Your task to perform on an android device: toggle sleep mode Image 0: 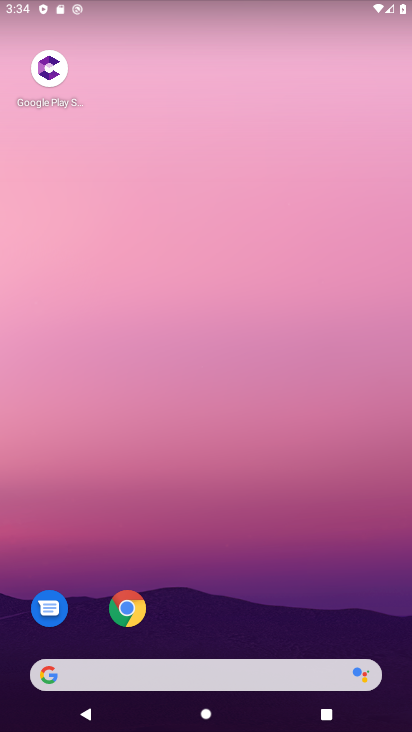
Step 0: drag from (194, 659) to (216, 142)
Your task to perform on an android device: toggle sleep mode Image 1: 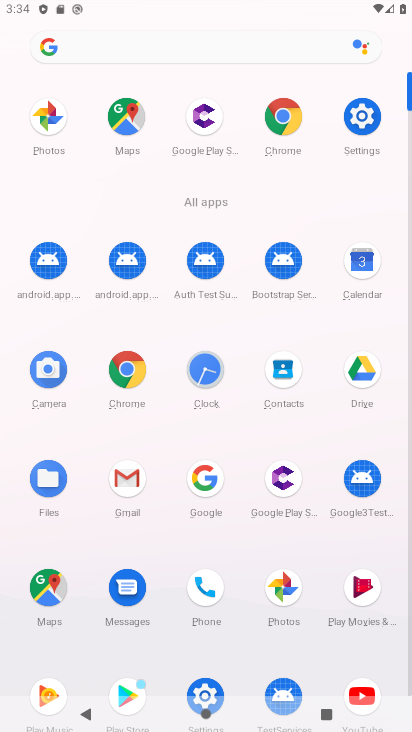
Step 1: click (369, 126)
Your task to perform on an android device: toggle sleep mode Image 2: 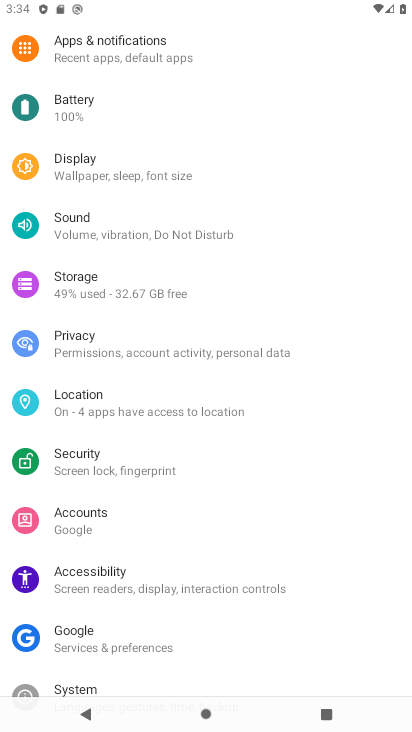
Step 2: click (150, 174)
Your task to perform on an android device: toggle sleep mode Image 3: 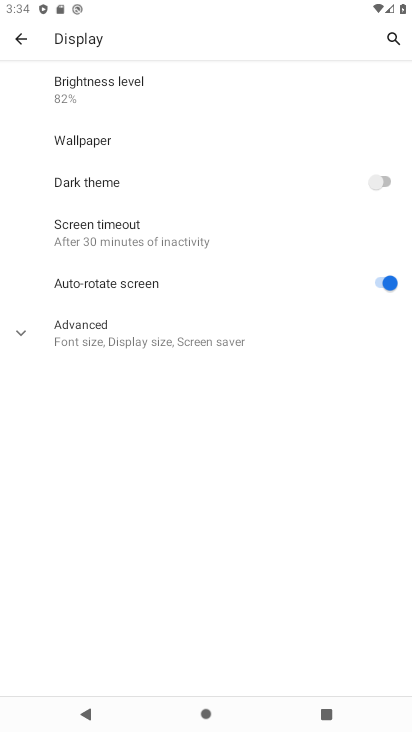
Step 3: click (109, 323)
Your task to perform on an android device: toggle sleep mode Image 4: 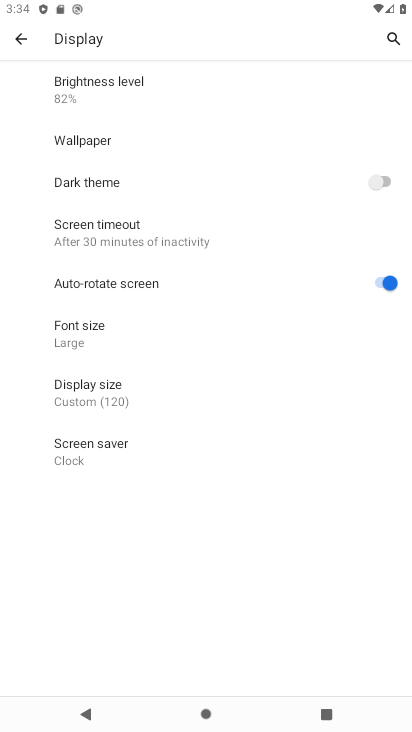
Step 4: click (90, 87)
Your task to perform on an android device: toggle sleep mode Image 5: 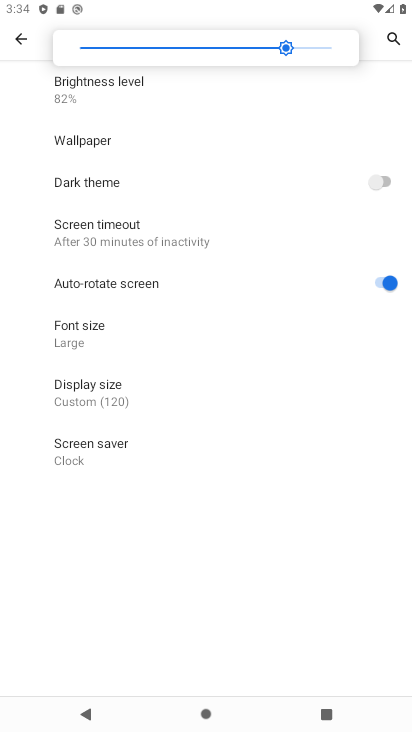
Step 5: click (132, 231)
Your task to perform on an android device: toggle sleep mode Image 6: 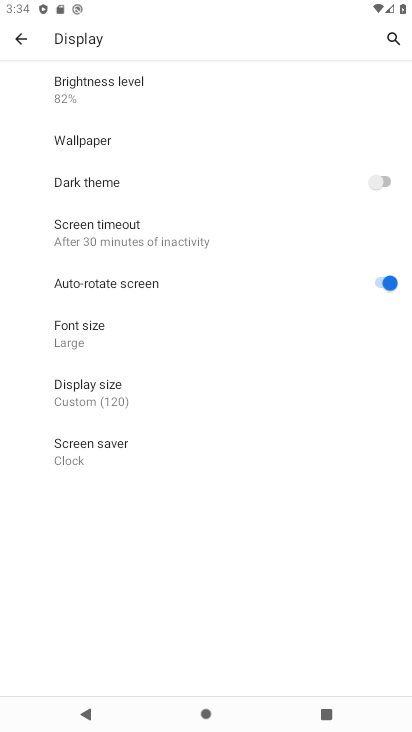
Step 6: click (134, 238)
Your task to perform on an android device: toggle sleep mode Image 7: 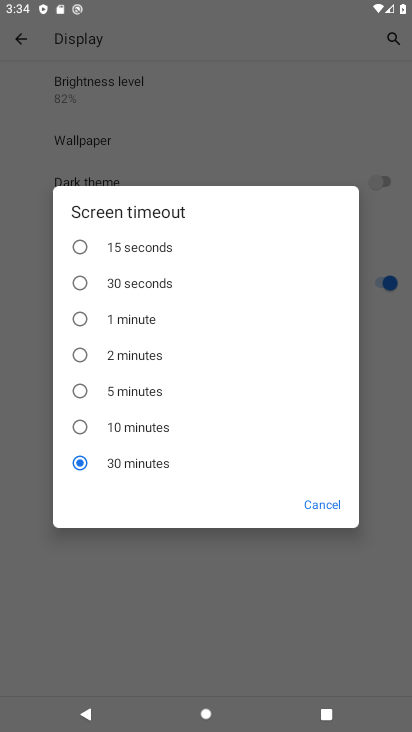
Step 7: click (110, 253)
Your task to perform on an android device: toggle sleep mode Image 8: 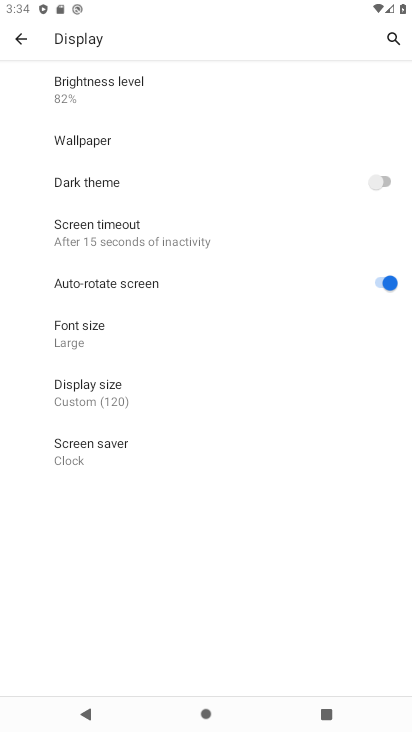
Step 8: task complete